Your task to perform on an android device: Go to battery settings Image 0: 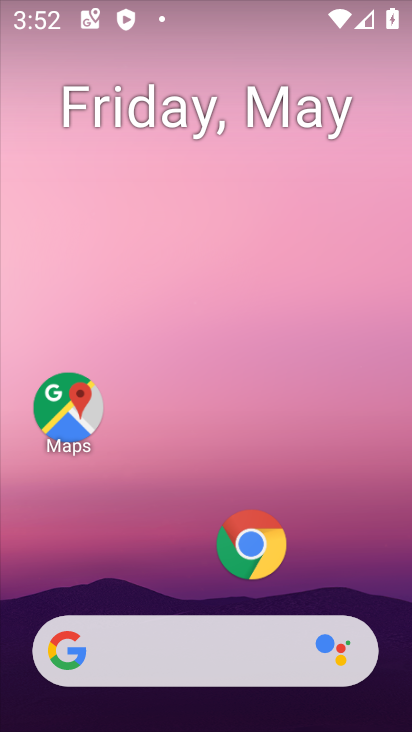
Step 0: drag from (202, 601) to (214, 150)
Your task to perform on an android device: Go to battery settings Image 1: 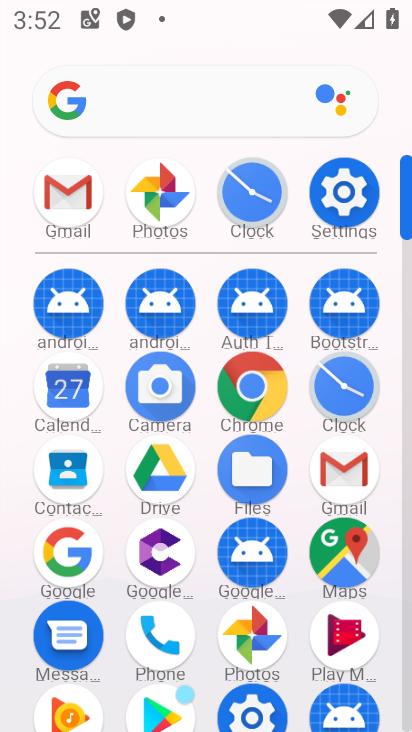
Step 1: click (352, 169)
Your task to perform on an android device: Go to battery settings Image 2: 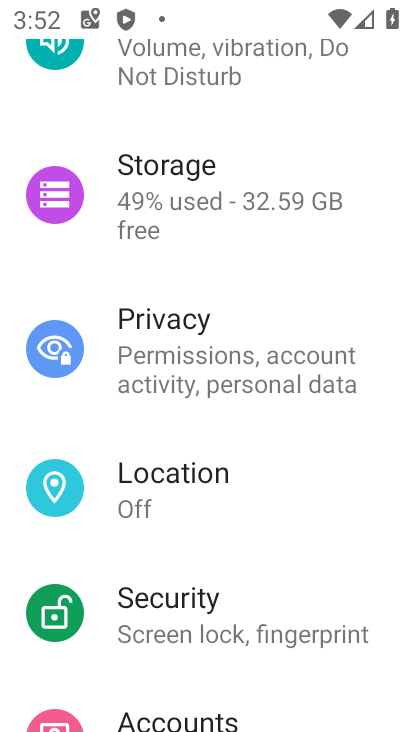
Step 2: drag from (184, 238) to (209, 540)
Your task to perform on an android device: Go to battery settings Image 3: 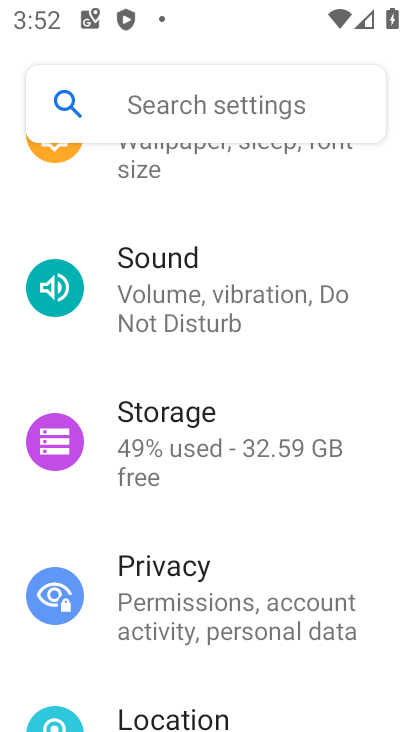
Step 3: drag from (261, 255) to (261, 618)
Your task to perform on an android device: Go to battery settings Image 4: 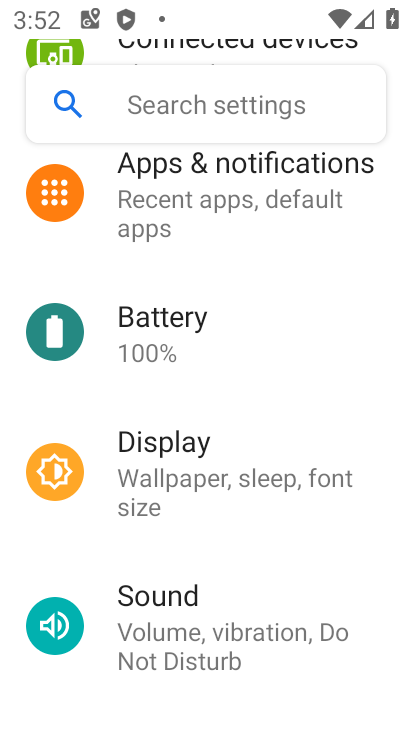
Step 4: drag from (251, 308) to (251, 536)
Your task to perform on an android device: Go to battery settings Image 5: 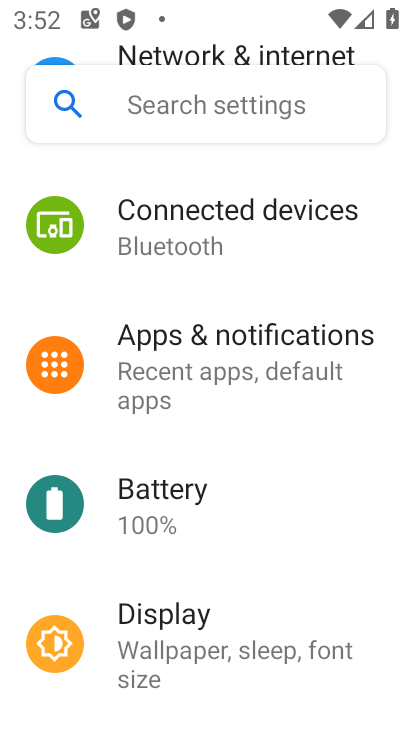
Step 5: drag from (230, 251) to (235, 528)
Your task to perform on an android device: Go to battery settings Image 6: 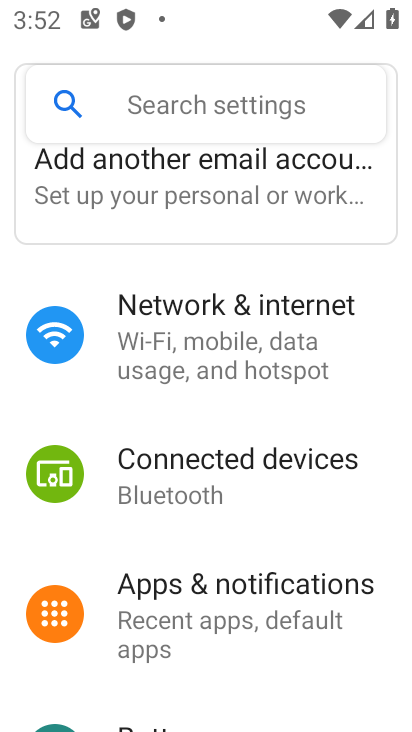
Step 6: drag from (253, 542) to (264, 244)
Your task to perform on an android device: Go to battery settings Image 7: 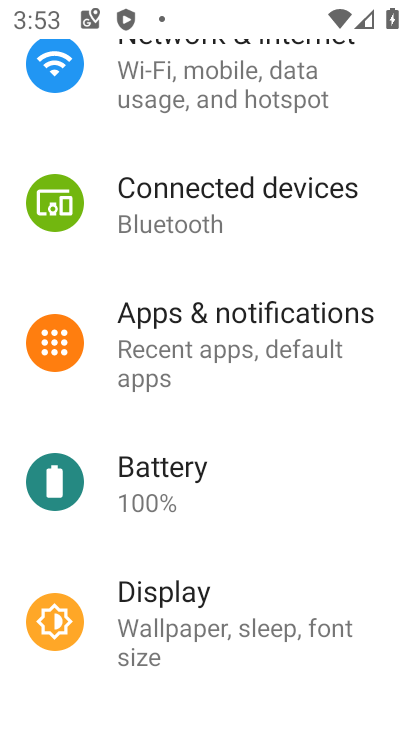
Step 7: drag from (263, 444) to (288, 214)
Your task to perform on an android device: Go to battery settings Image 8: 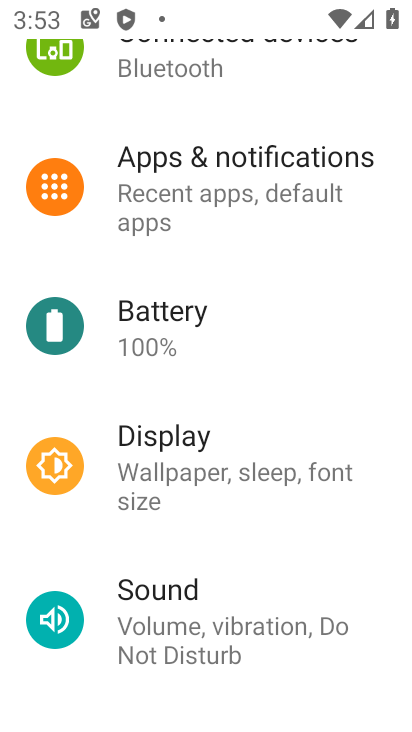
Step 8: drag from (281, 533) to (288, 217)
Your task to perform on an android device: Go to battery settings Image 9: 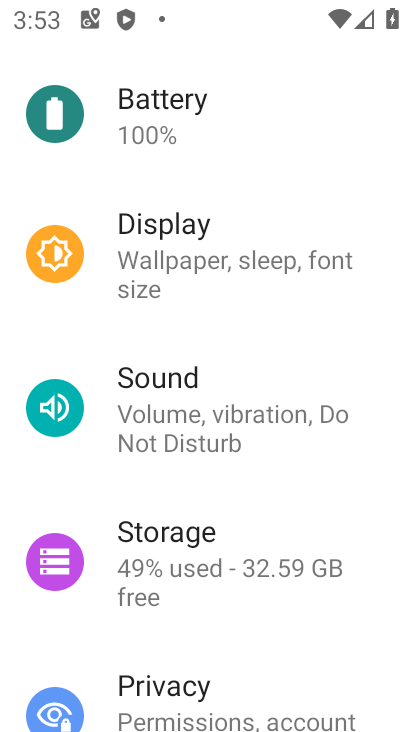
Step 9: click (198, 133)
Your task to perform on an android device: Go to battery settings Image 10: 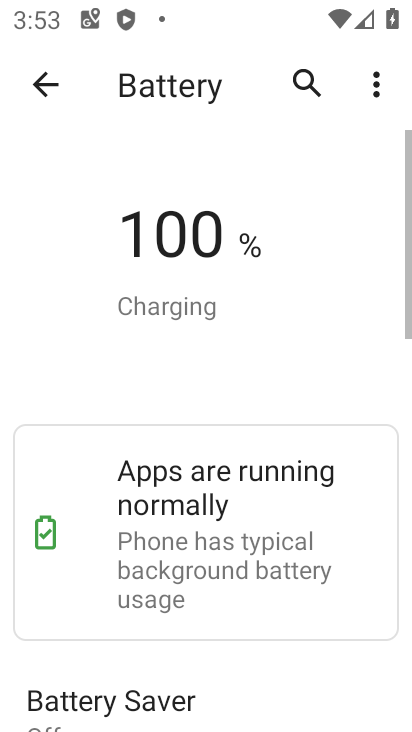
Step 10: task complete